Your task to perform on an android device: Go to eBay Image 0: 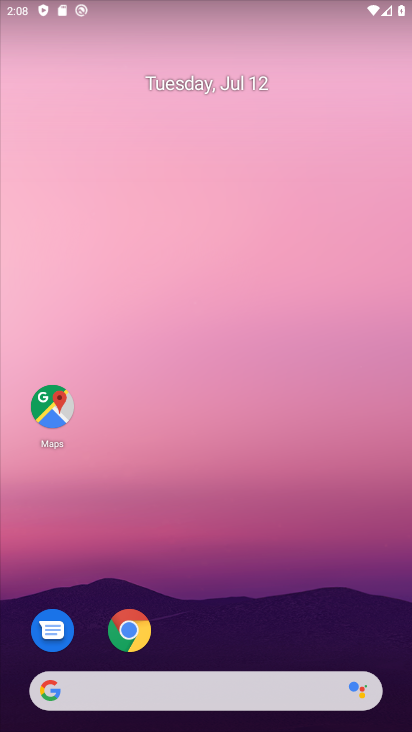
Step 0: click (129, 632)
Your task to perform on an android device: Go to eBay Image 1: 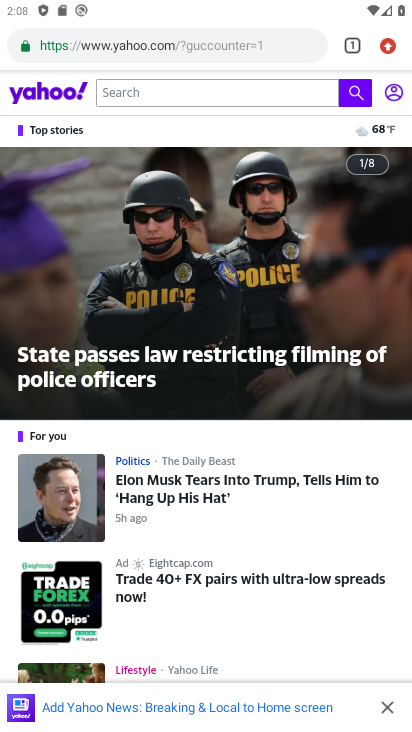
Step 1: click (282, 40)
Your task to perform on an android device: Go to eBay Image 2: 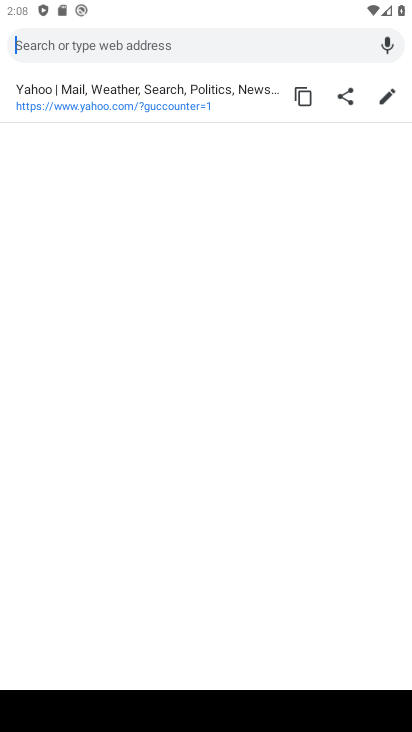
Step 2: type "eBay"
Your task to perform on an android device: Go to eBay Image 3: 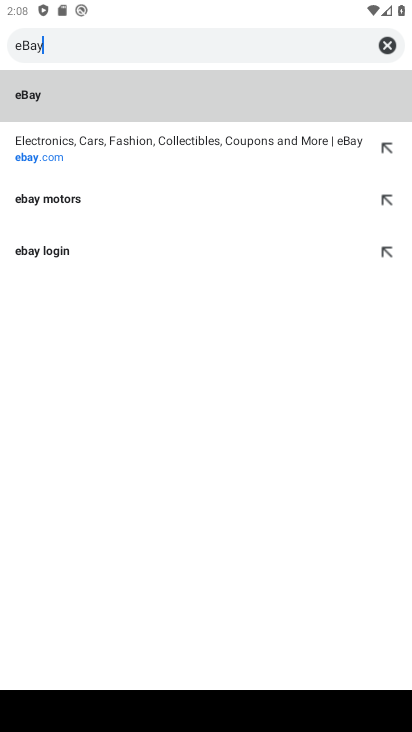
Step 3: click (59, 144)
Your task to perform on an android device: Go to eBay Image 4: 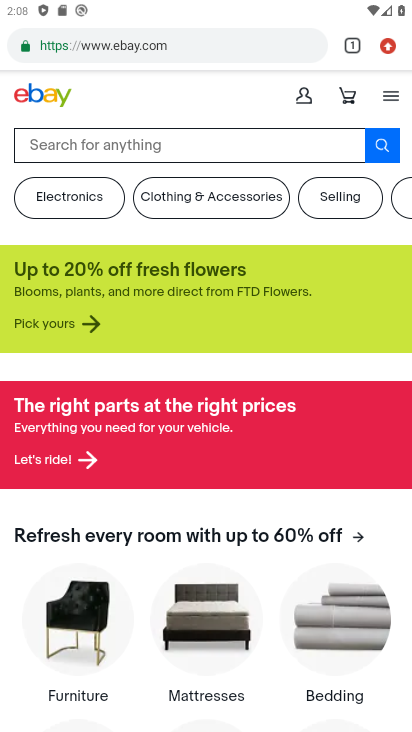
Step 4: task complete